Your task to perform on an android device: Open eBay Image 0: 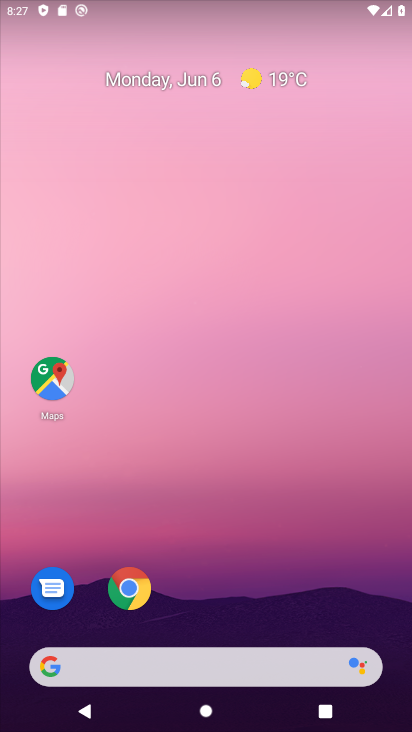
Step 0: drag from (309, 691) to (302, 134)
Your task to perform on an android device: Open eBay Image 1: 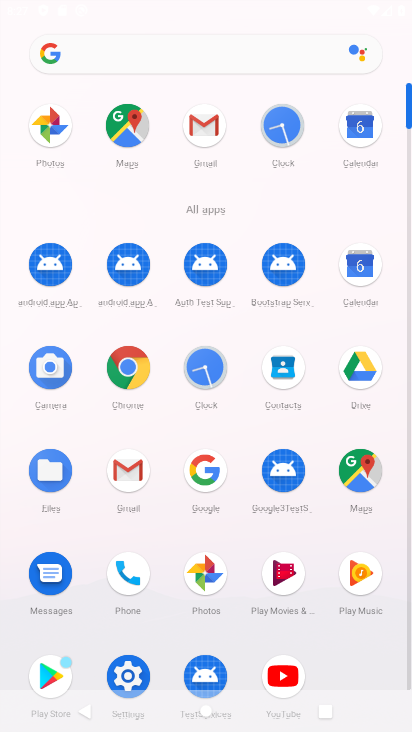
Step 1: click (128, 360)
Your task to perform on an android device: Open eBay Image 2: 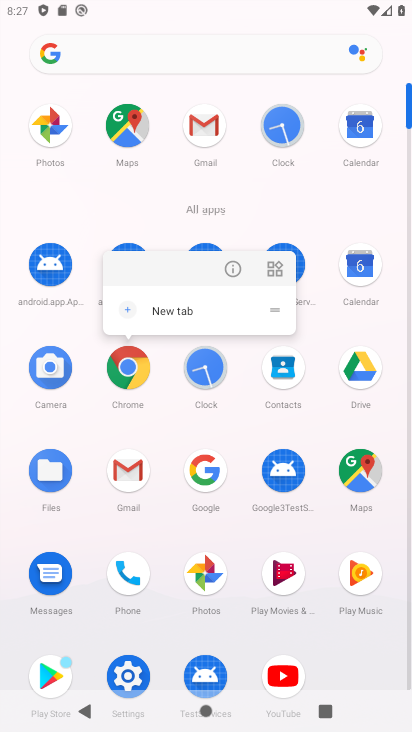
Step 2: click (128, 360)
Your task to perform on an android device: Open eBay Image 3: 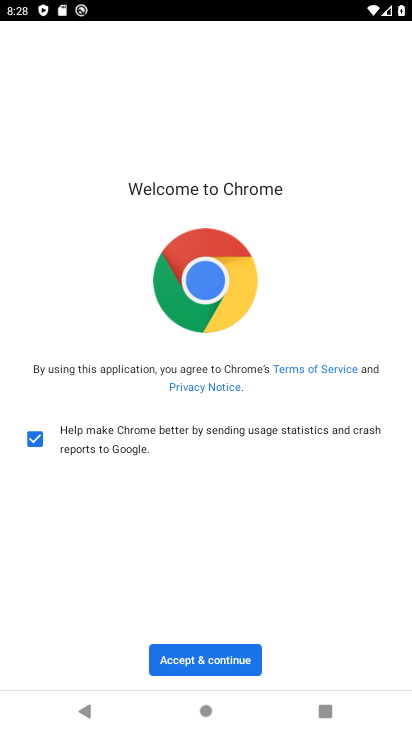
Step 3: click (233, 643)
Your task to perform on an android device: Open eBay Image 4: 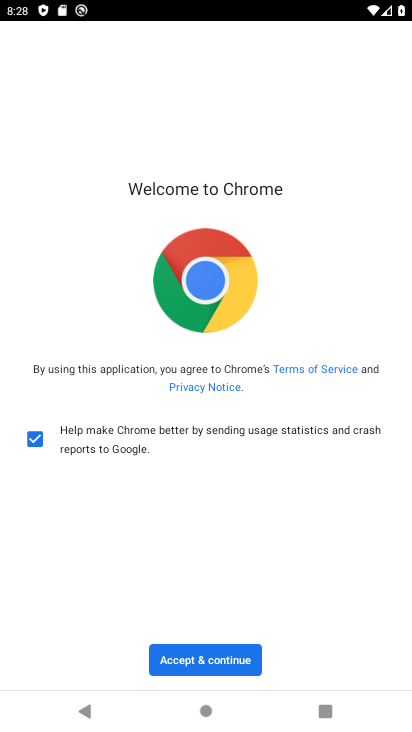
Step 4: click (229, 650)
Your task to perform on an android device: Open eBay Image 5: 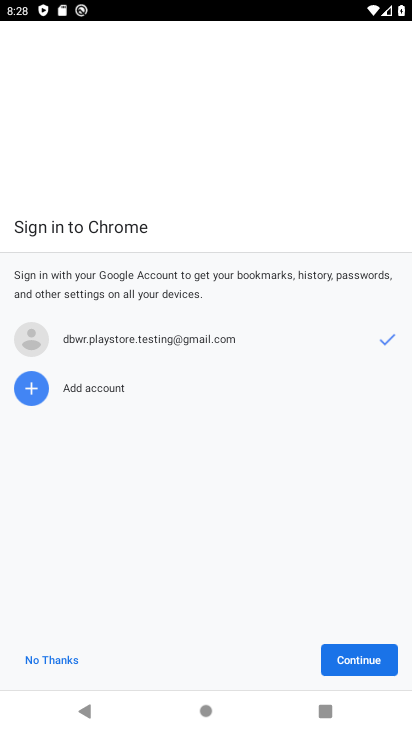
Step 5: click (57, 657)
Your task to perform on an android device: Open eBay Image 6: 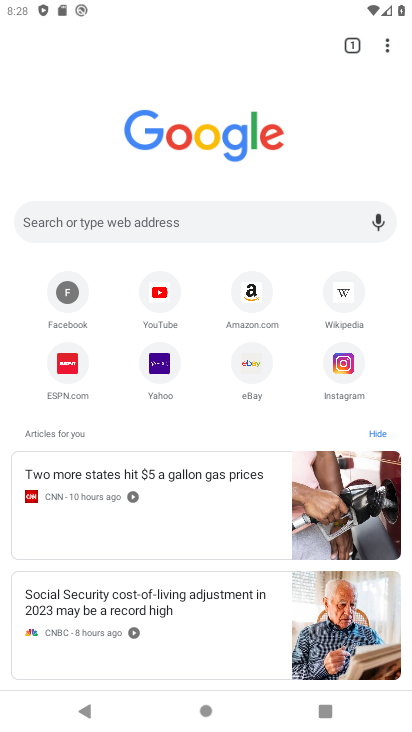
Step 6: click (261, 366)
Your task to perform on an android device: Open eBay Image 7: 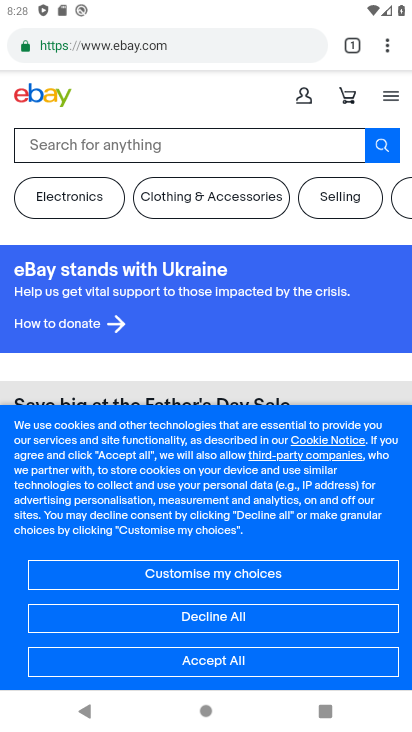
Step 7: task complete